Your task to perform on an android device: check battery use Image 0: 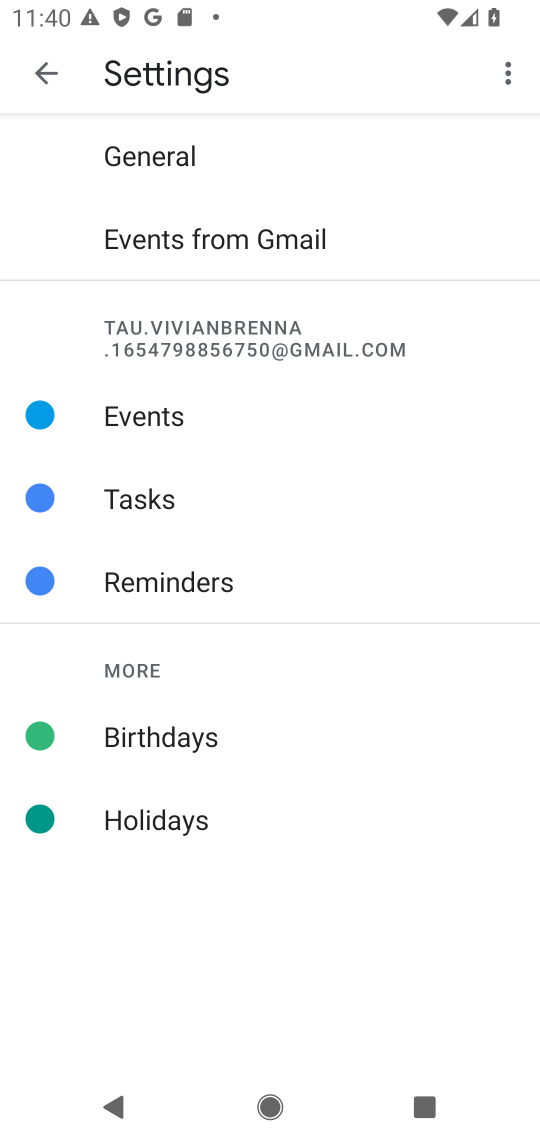
Step 0: press home button
Your task to perform on an android device: check battery use Image 1: 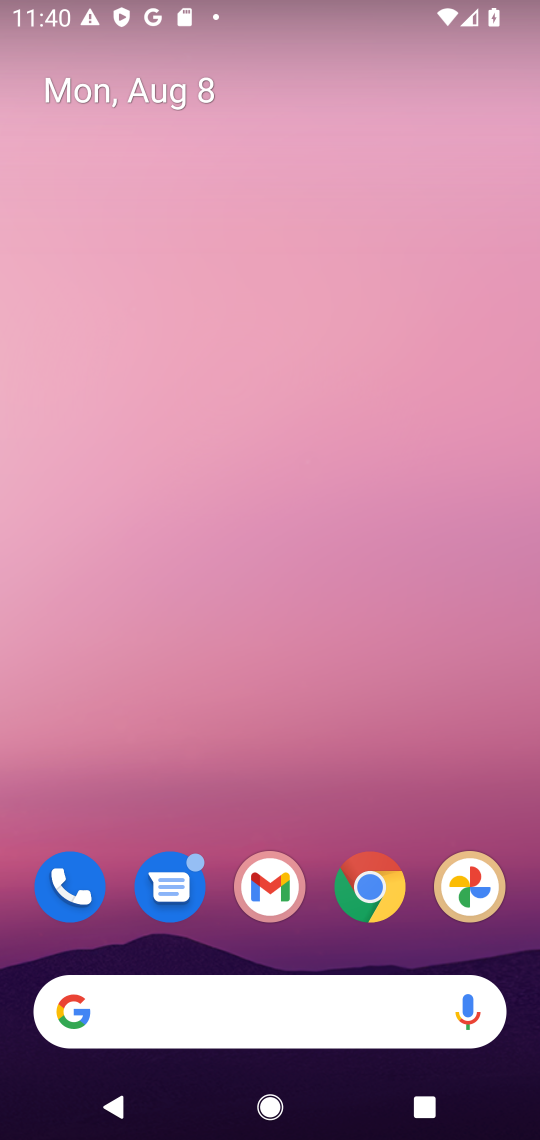
Step 1: drag from (341, 726) to (302, 149)
Your task to perform on an android device: check battery use Image 2: 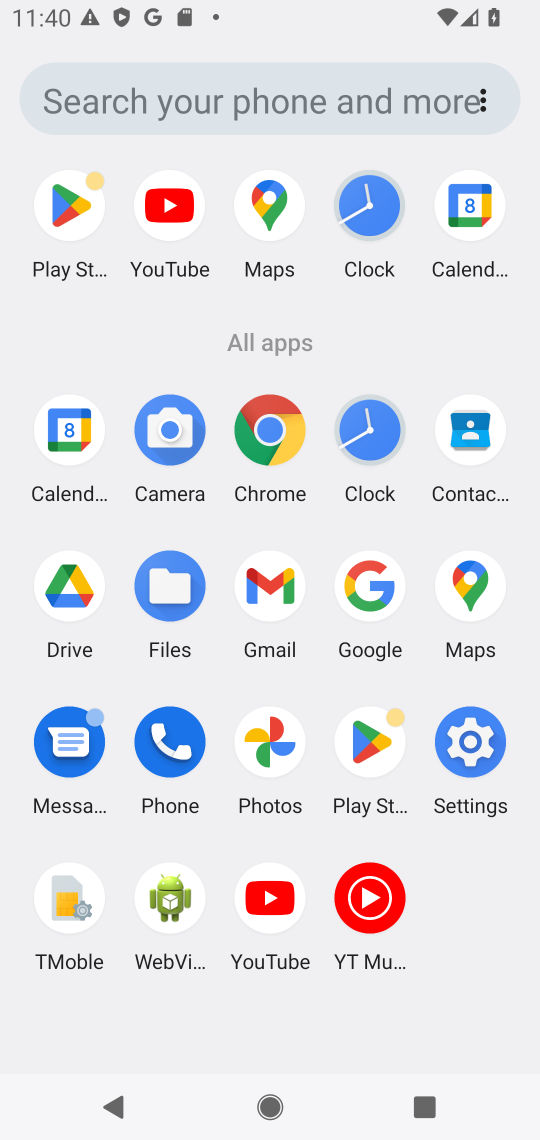
Step 2: click (465, 739)
Your task to perform on an android device: check battery use Image 3: 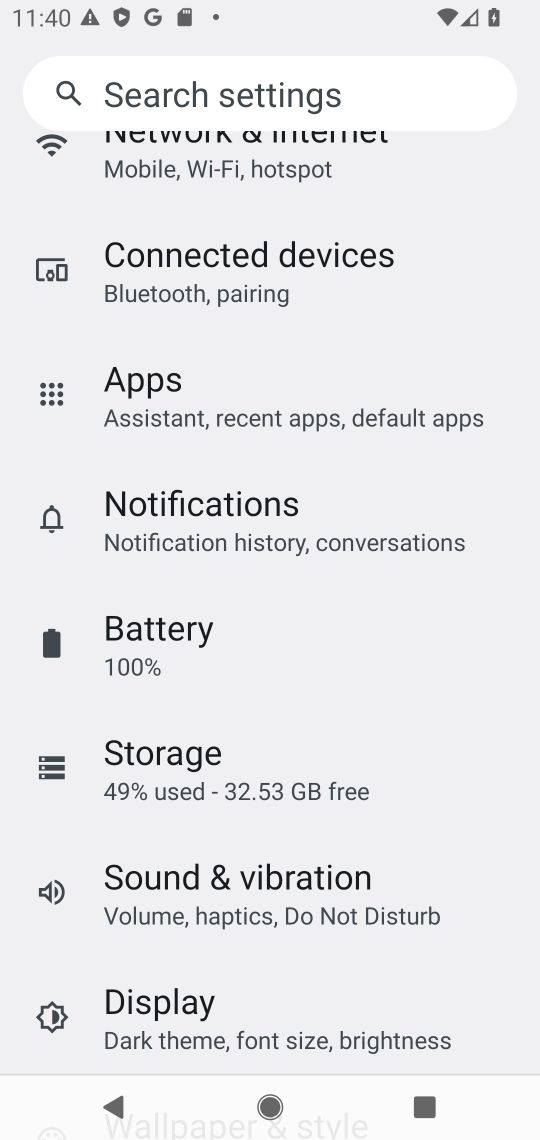
Step 3: click (198, 616)
Your task to perform on an android device: check battery use Image 4: 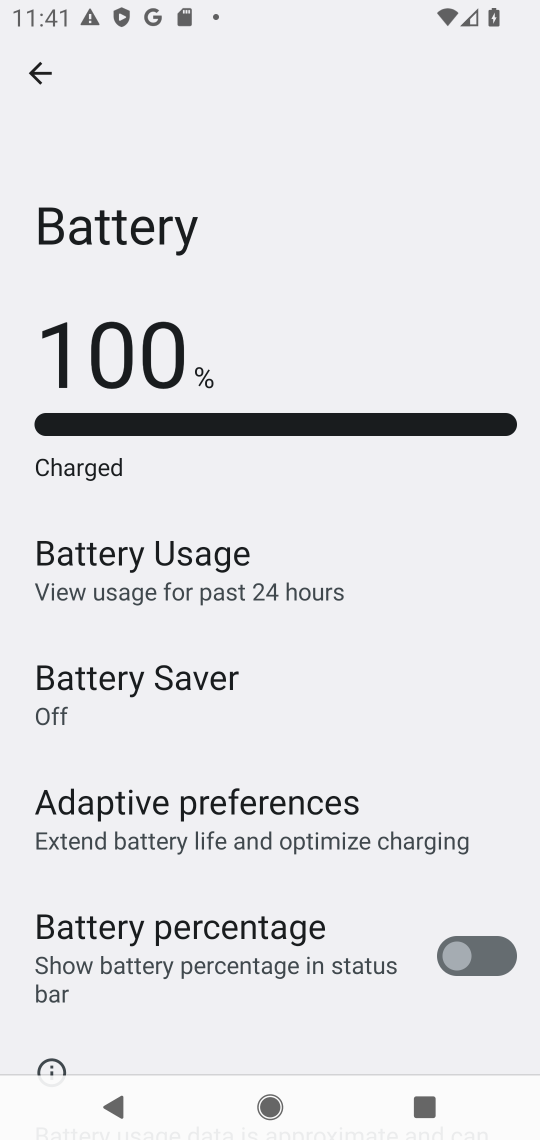
Step 4: task complete